Your task to perform on an android device: change timer sound Image 0: 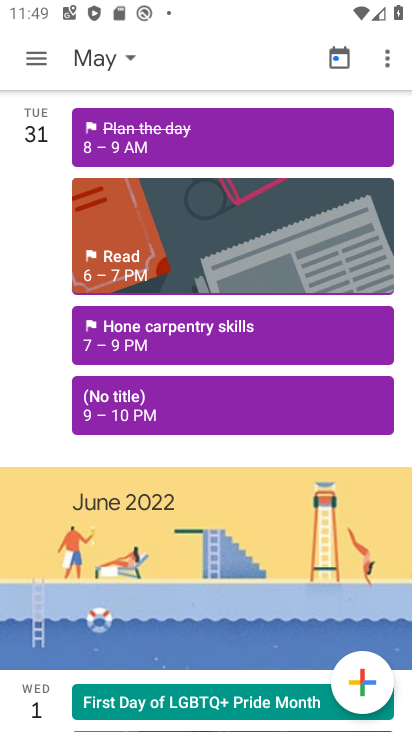
Step 0: press home button
Your task to perform on an android device: change timer sound Image 1: 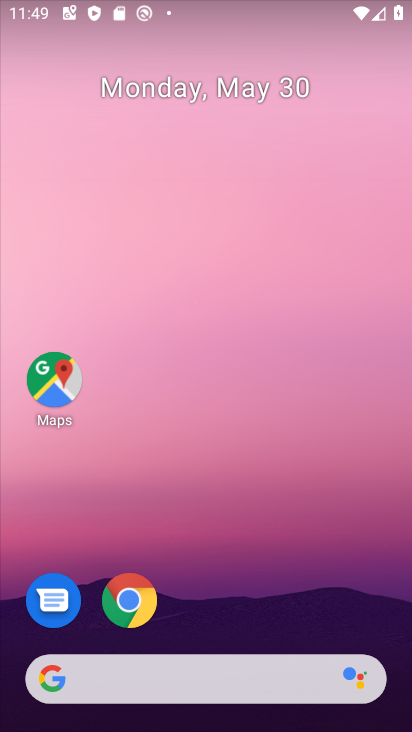
Step 1: drag from (222, 730) to (225, 164)
Your task to perform on an android device: change timer sound Image 2: 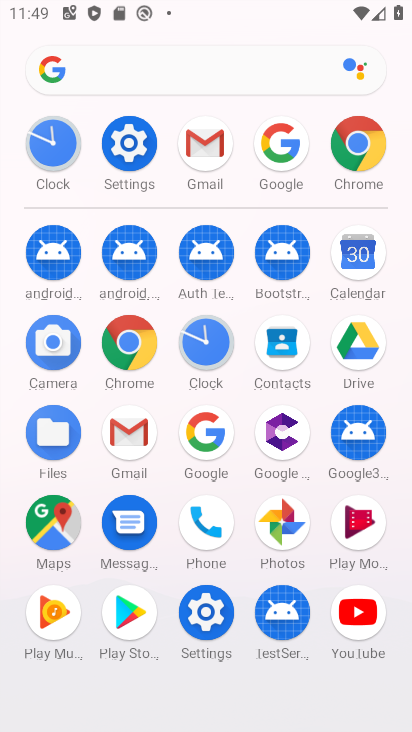
Step 2: click (204, 354)
Your task to perform on an android device: change timer sound Image 3: 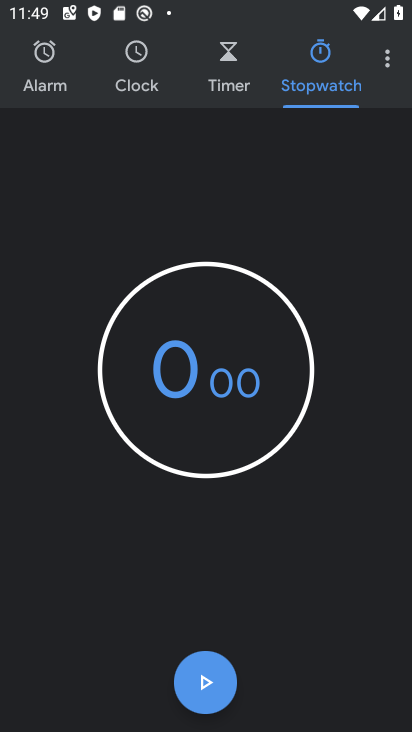
Step 3: click (387, 67)
Your task to perform on an android device: change timer sound Image 4: 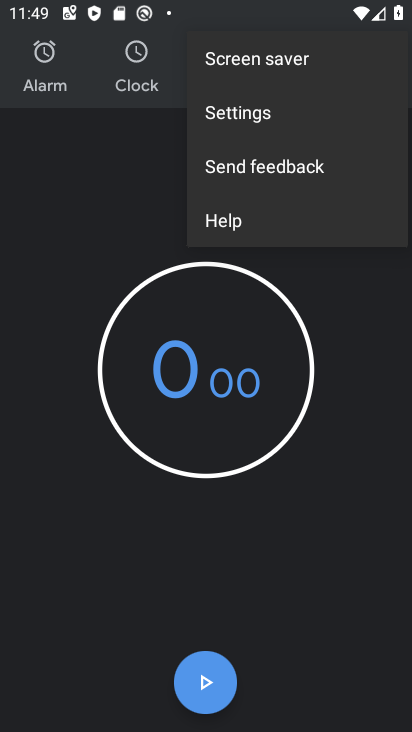
Step 4: click (230, 112)
Your task to perform on an android device: change timer sound Image 5: 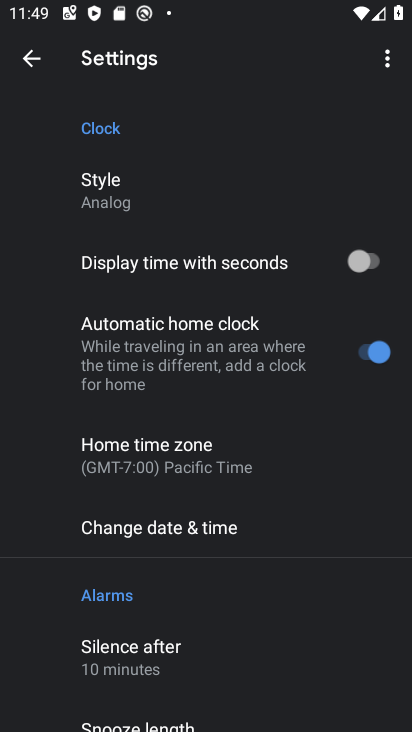
Step 5: drag from (148, 706) to (149, 193)
Your task to perform on an android device: change timer sound Image 6: 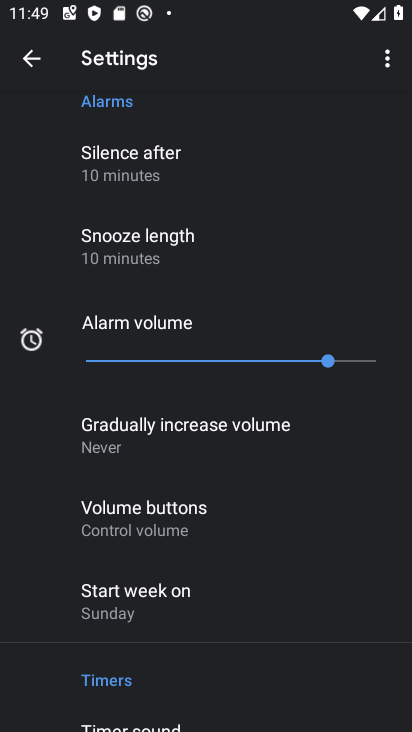
Step 6: drag from (215, 636) to (211, 162)
Your task to perform on an android device: change timer sound Image 7: 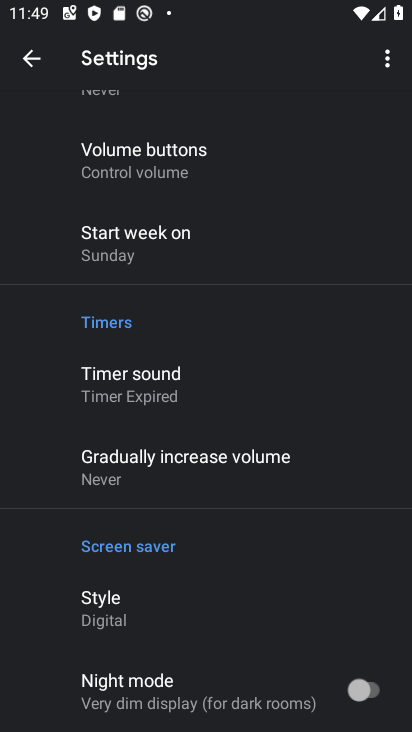
Step 7: click (130, 388)
Your task to perform on an android device: change timer sound Image 8: 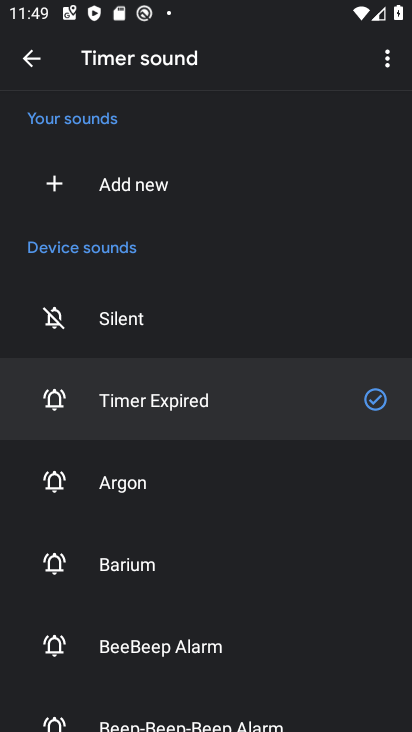
Step 8: click (56, 645)
Your task to perform on an android device: change timer sound Image 9: 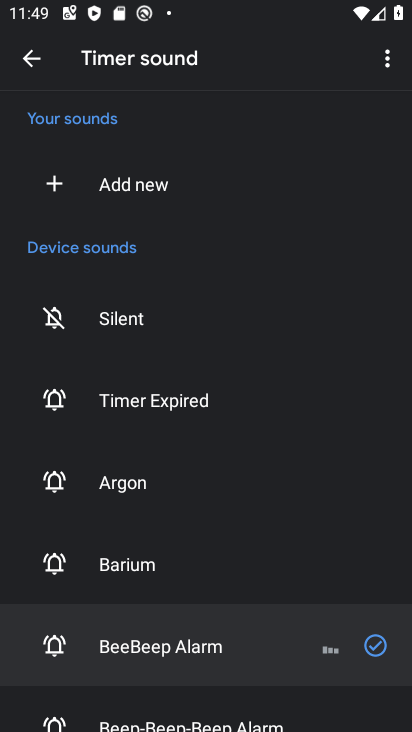
Step 9: task complete